Your task to perform on an android device: empty trash in the gmail app Image 0: 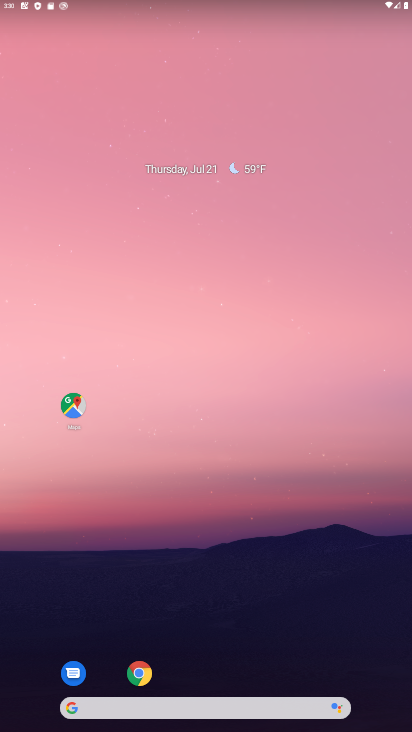
Step 0: drag from (353, 680) to (315, 157)
Your task to perform on an android device: empty trash in the gmail app Image 1: 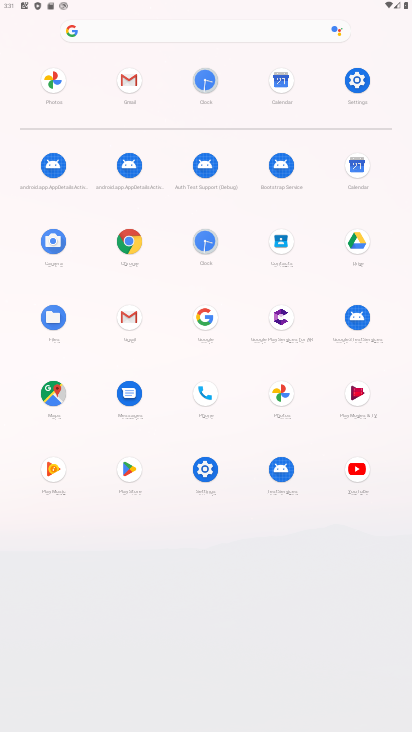
Step 1: click (129, 317)
Your task to perform on an android device: empty trash in the gmail app Image 2: 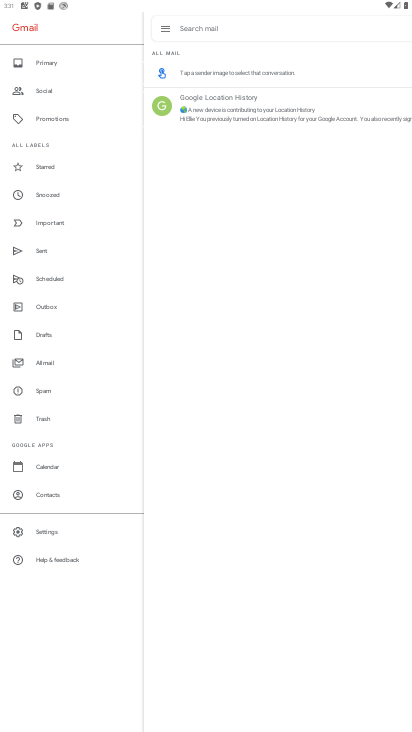
Step 2: click (43, 425)
Your task to perform on an android device: empty trash in the gmail app Image 3: 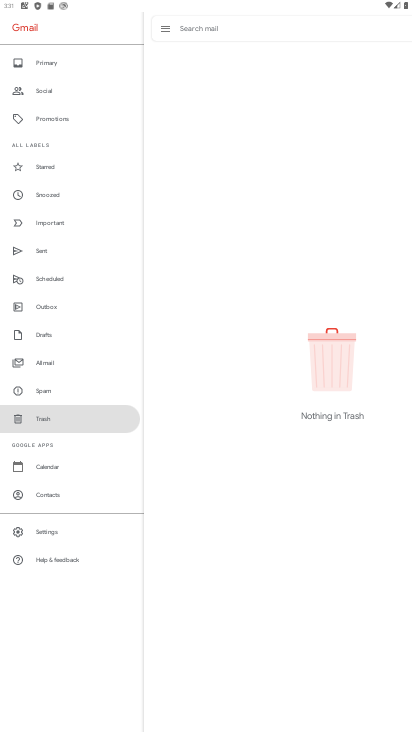
Step 3: task complete